Your task to perform on an android device: Show the shopping cart on target.com. Search for corsair k70 on target.com, select the first entry, add it to the cart, then select checkout. Image 0: 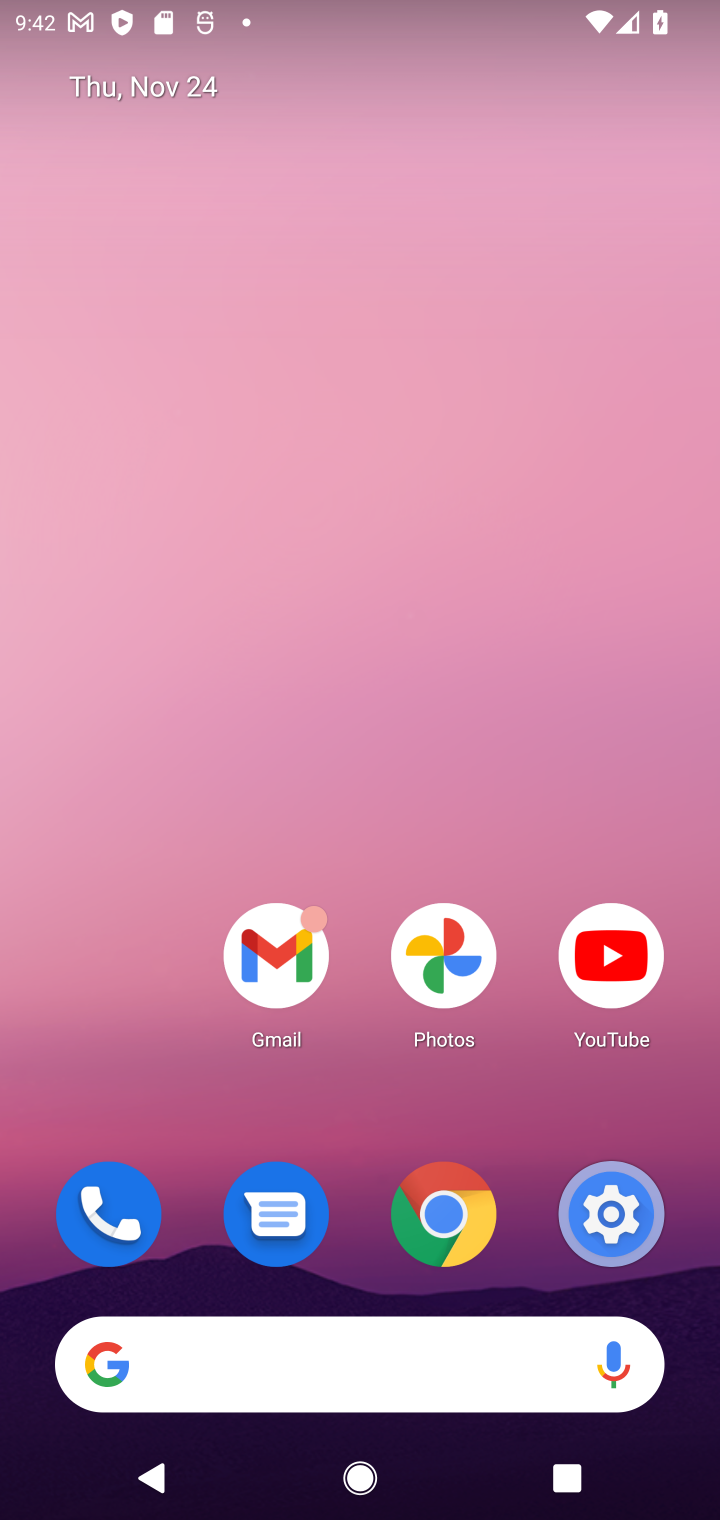
Step 0: click (327, 1376)
Your task to perform on an android device: Show the shopping cart on target.com. Search for corsair k70 on target.com, select the first entry, add it to the cart, then select checkout. Image 1: 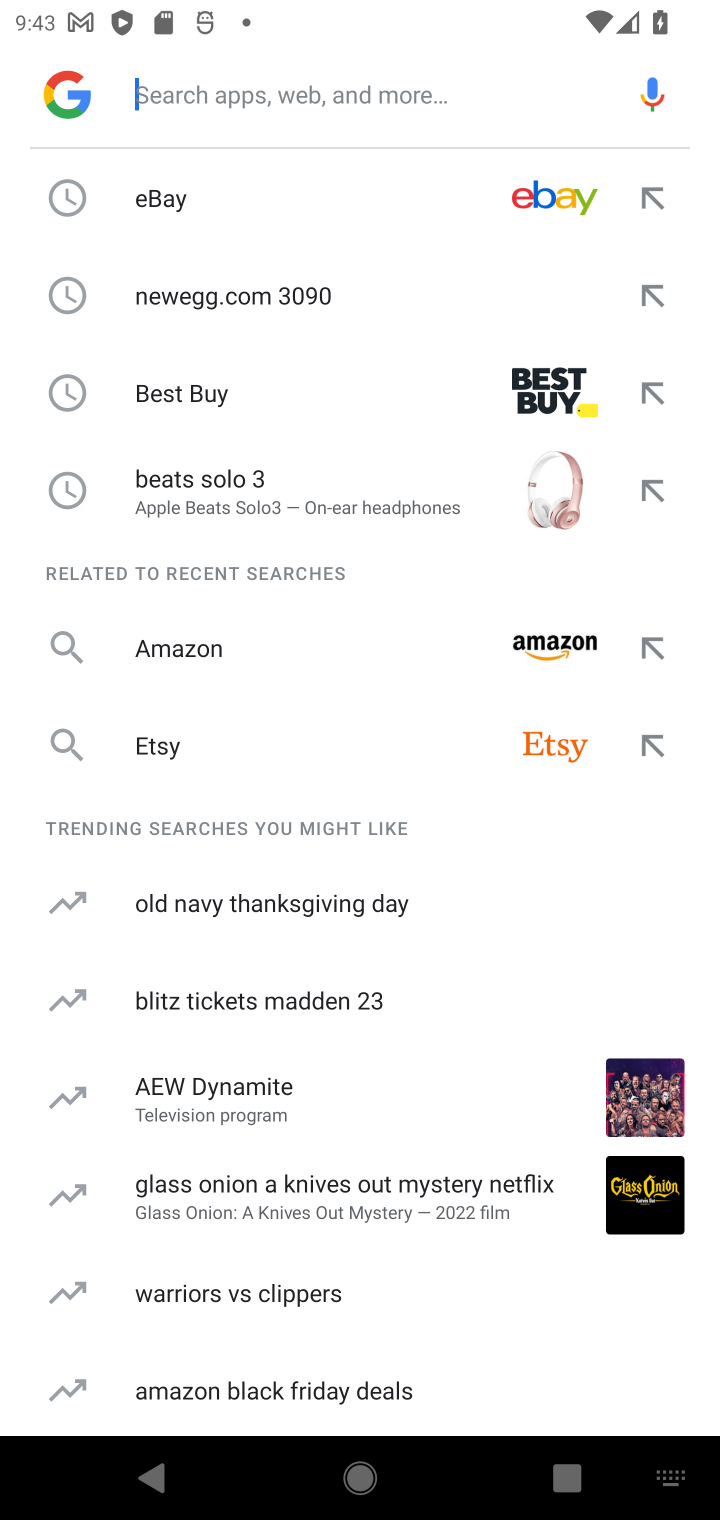
Step 1: type "target.com"
Your task to perform on an android device: Show the shopping cart on target.com. Search for corsair k70 on target.com, select the first entry, add it to the cart, then select checkout. Image 2: 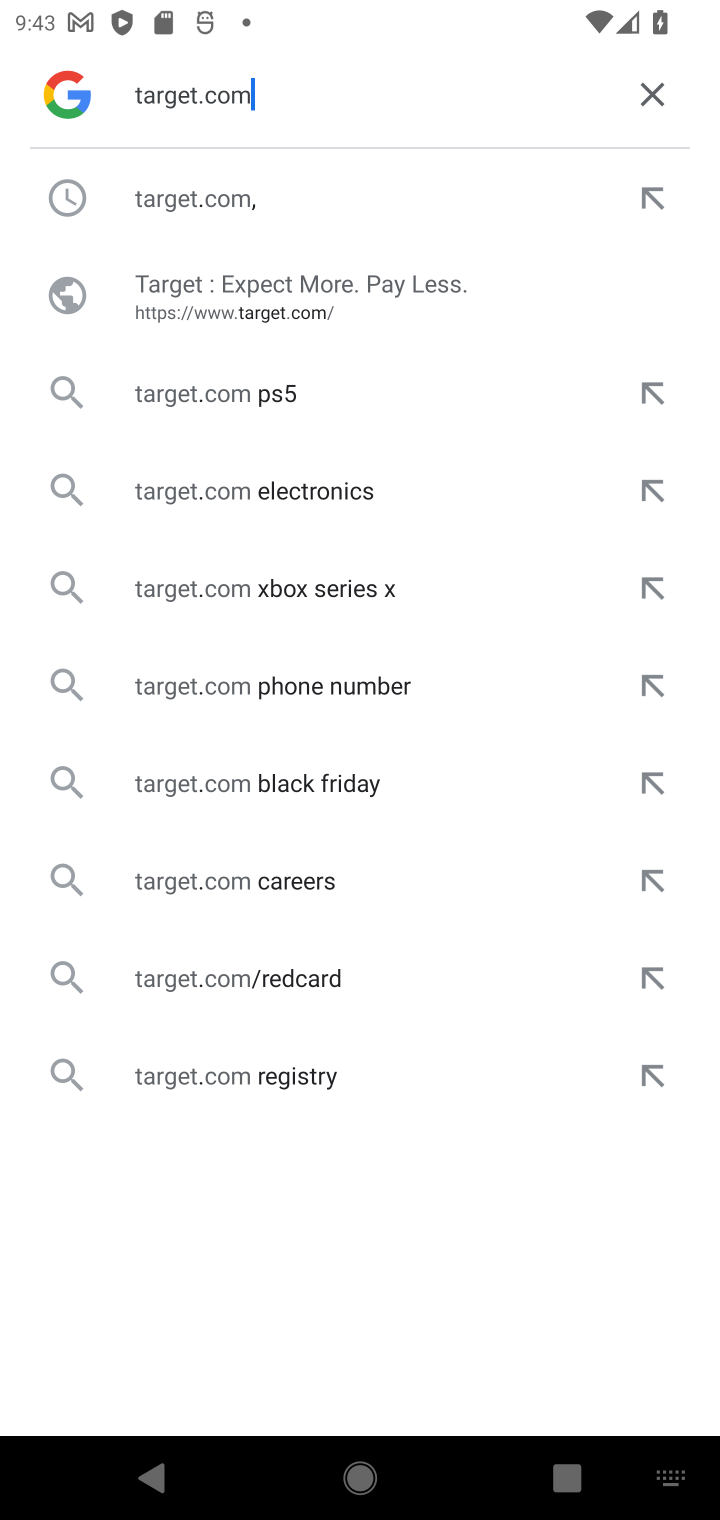
Step 2: click (298, 336)
Your task to perform on an android device: Show the shopping cart on target.com. Search for corsair k70 on target.com, select the first entry, add it to the cart, then select checkout. Image 3: 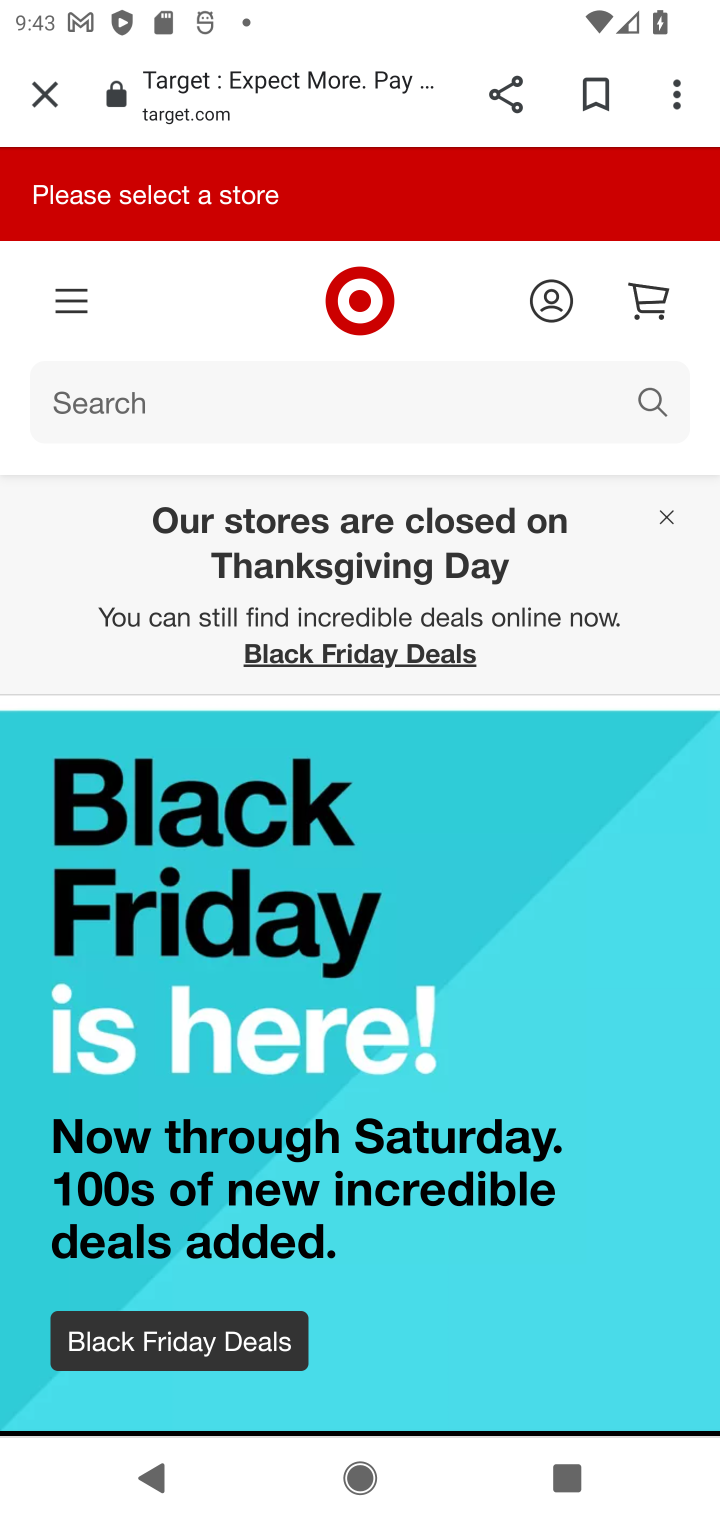
Step 3: task complete